Your task to perform on an android device: Search for sushi restaurants on Maps Image 0: 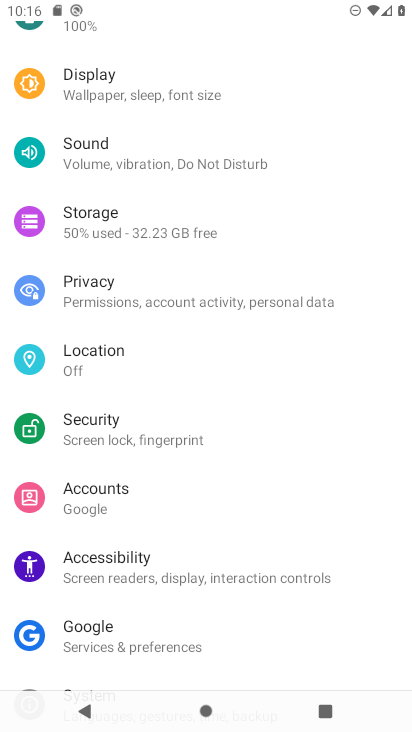
Step 0: press home button
Your task to perform on an android device: Search for sushi restaurants on Maps Image 1: 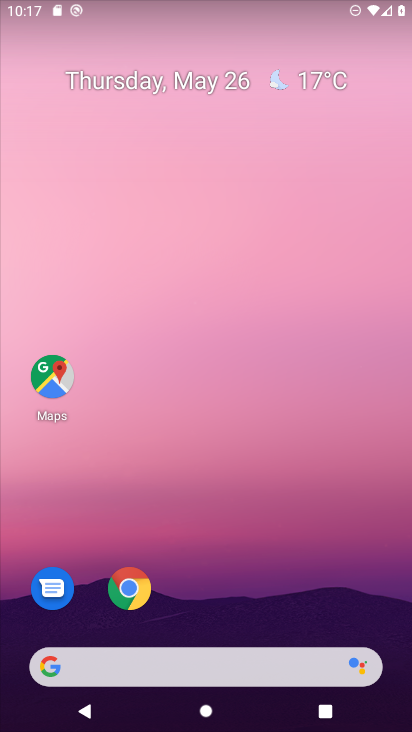
Step 1: click (53, 375)
Your task to perform on an android device: Search for sushi restaurants on Maps Image 2: 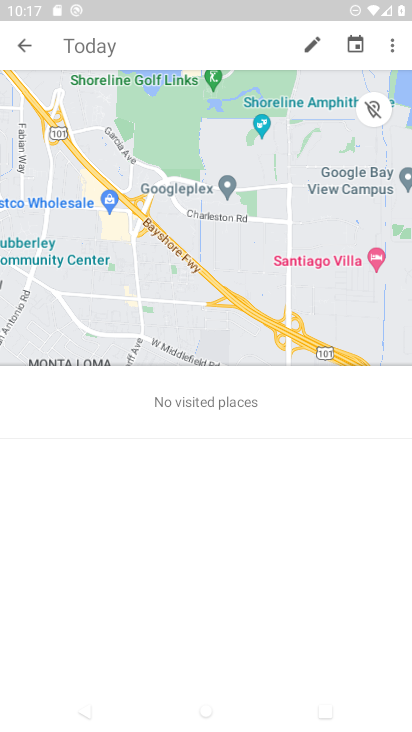
Step 2: press back button
Your task to perform on an android device: Search for sushi restaurants on Maps Image 3: 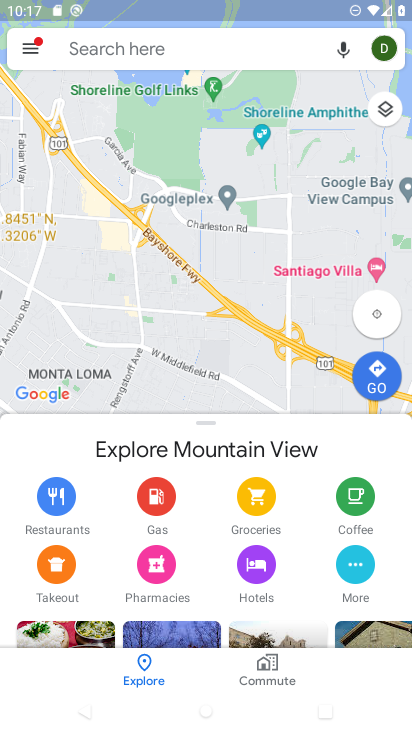
Step 3: click (145, 43)
Your task to perform on an android device: Search for sushi restaurants on Maps Image 4: 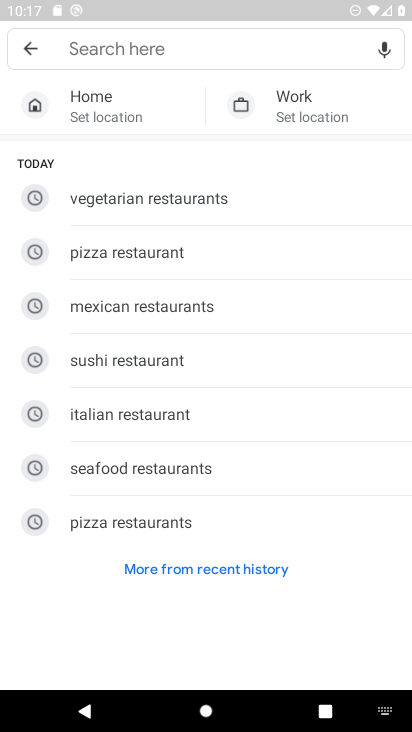
Step 4: type "sushi restaurants"
Your task to perform on an android device: Search for sushi restaurants on Maps Image 5: 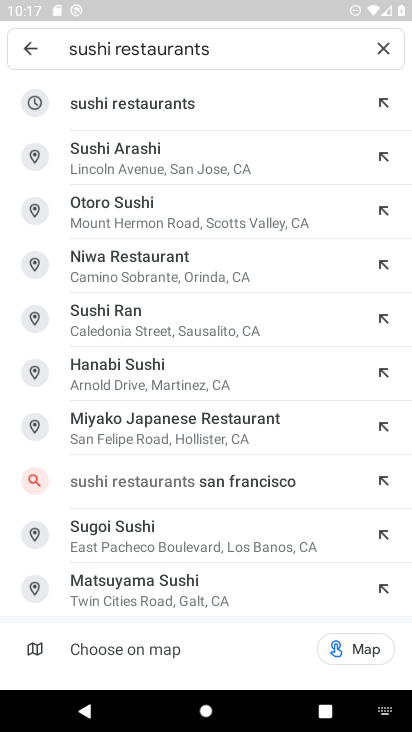
Step 5: click (124, 89)
Your task to perform on an android device: Search for sushi restaurants on Maps Image 6: 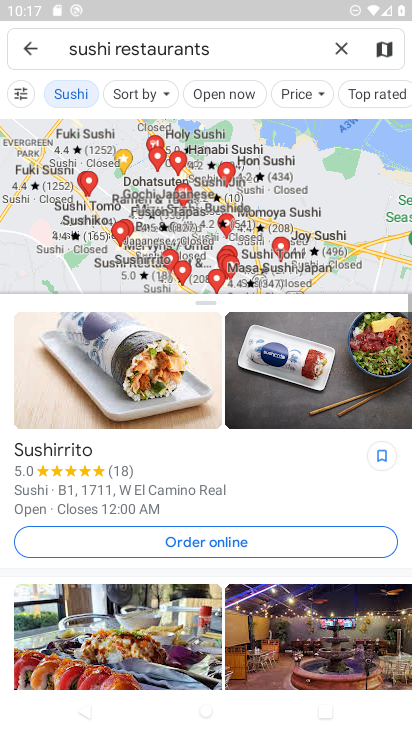
Step 6: task complete